Your task to perform on an android device: turn off location history Image 0: 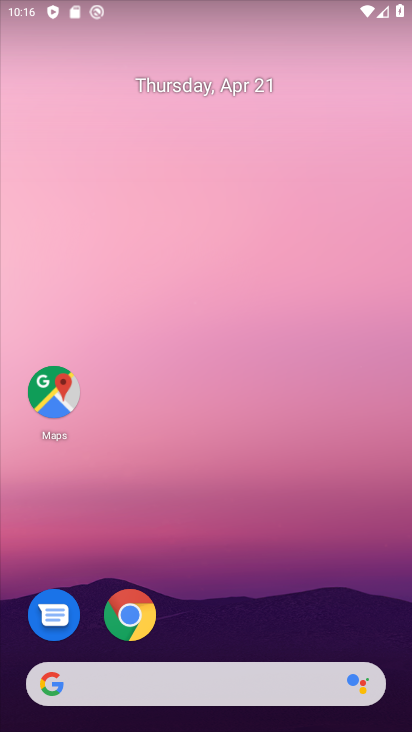
Step 0: drag from (244, 534) to (342, 56)
Your task to perform on an android device: turn off location history Image 1: 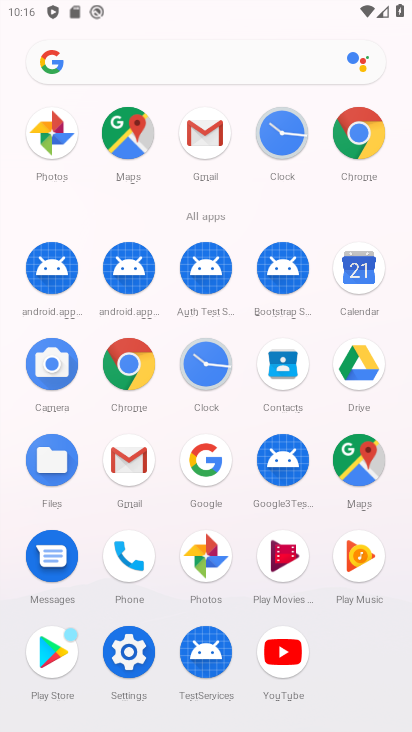
Step 1: click (116, 655)
Your task to perform on an android device: turn off location history Image 2: 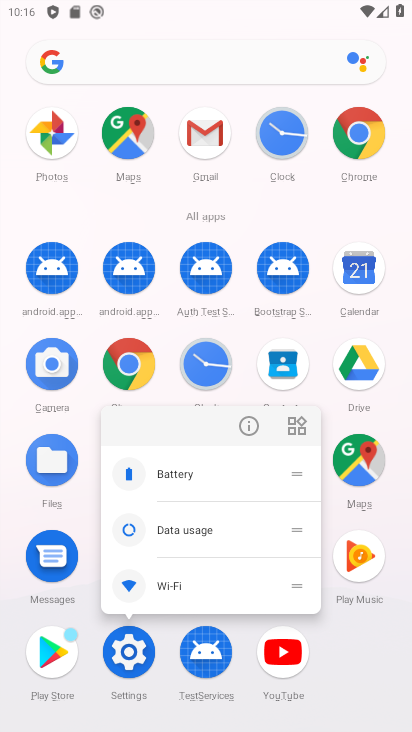
Step 2: click (121, 660)
Your task to perform on an android device: turn off location history Image 3: 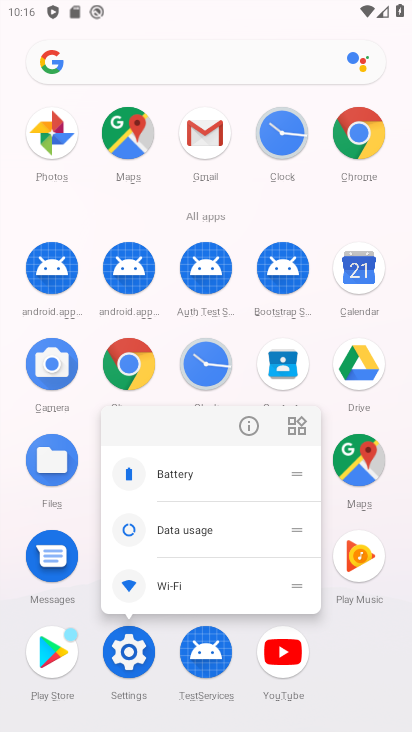
Step 3: click (136, 650)
Your task to perform on an android device: turn off location history Image 4: 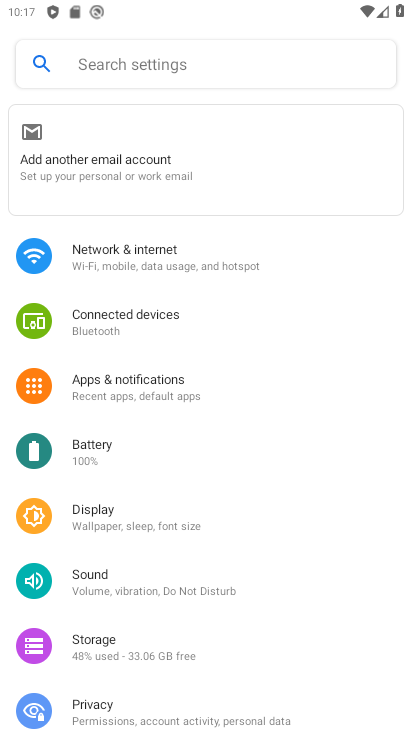
Step 4: drag from (120, 640) to (238, 295)
Your task to perform on an android device: turn off location history Image 5: 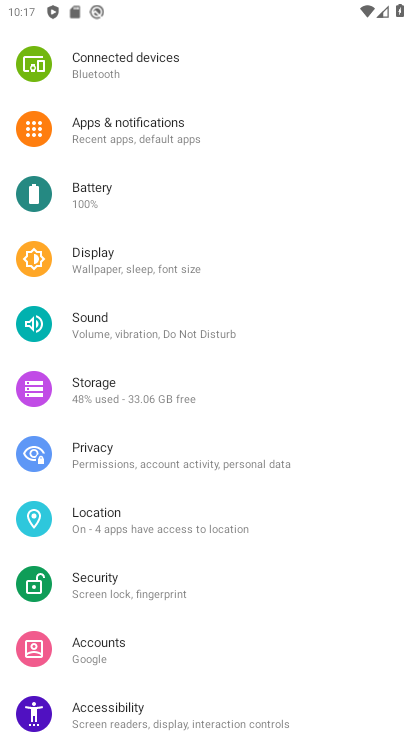
Step 5: click (157, 520)
Your task to perform on an android device: turn off location history Image 6: 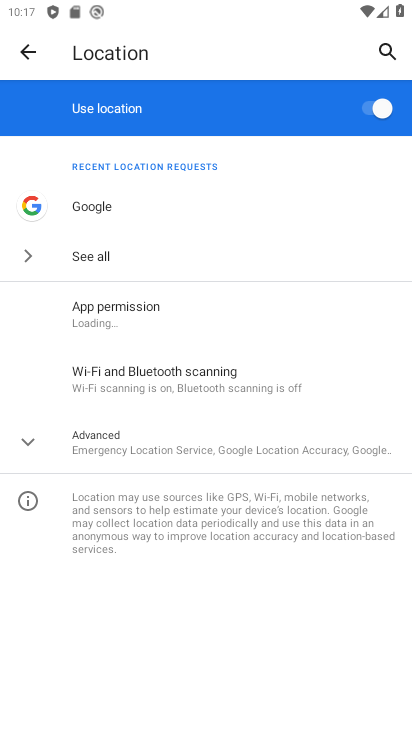
Step 6: click (136, 443)
Your task to perform on an android device: turn off location history Image 7: 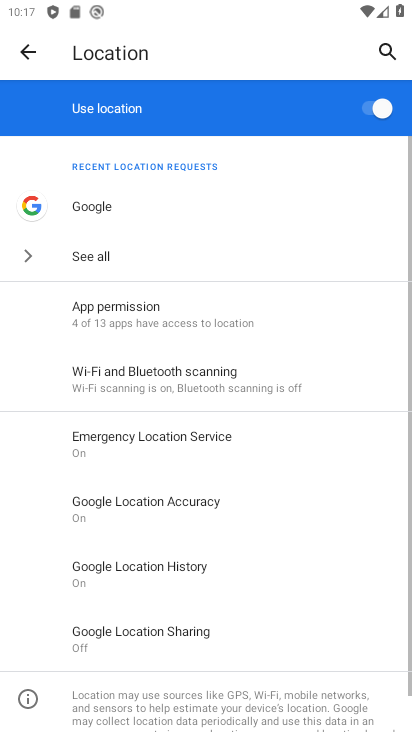
Step 7: click (192, 575)
Your task to perform on an android device: turn off location history Image 8: 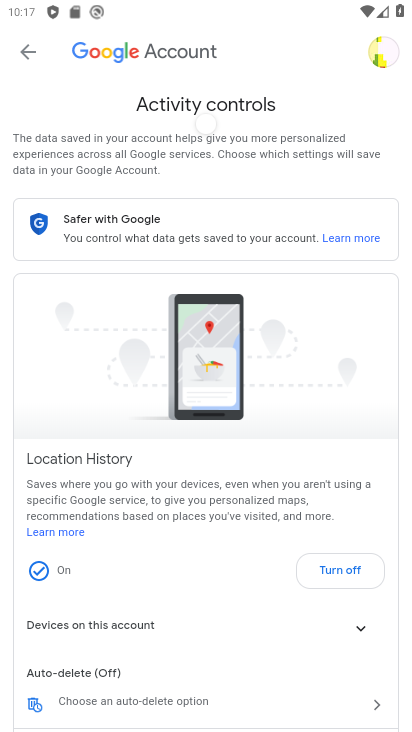
Step 8: click (340, 578)
Your task to perform on an android device: turn off location history Image 9: 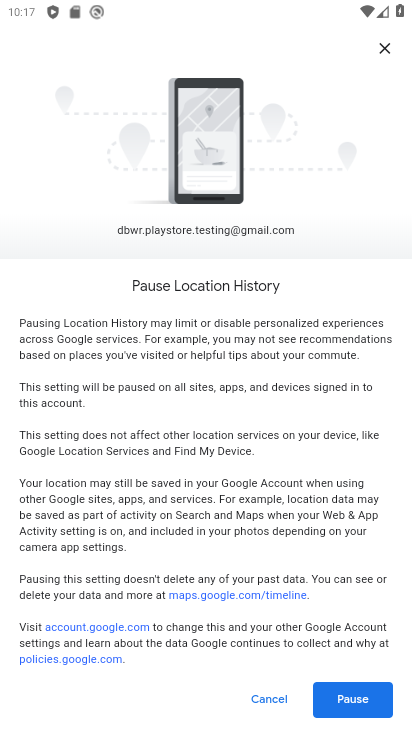
Step 9: click (369, 710)
Your task to perform on an android device: turn off location history Image 10: 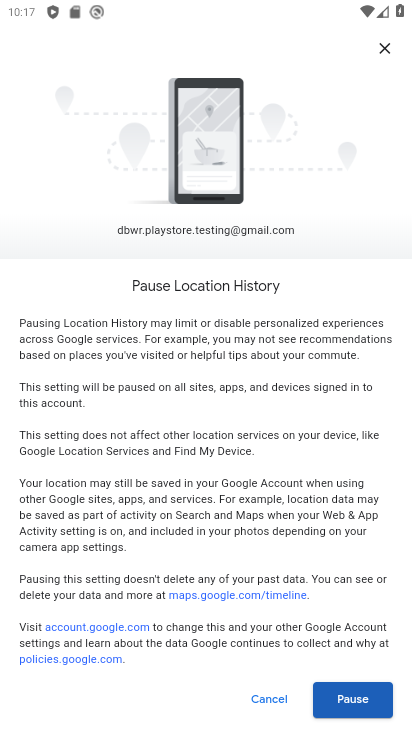
Step 10: click (369, 708)
Your task to perform on an android device: turn off location history Image 11: 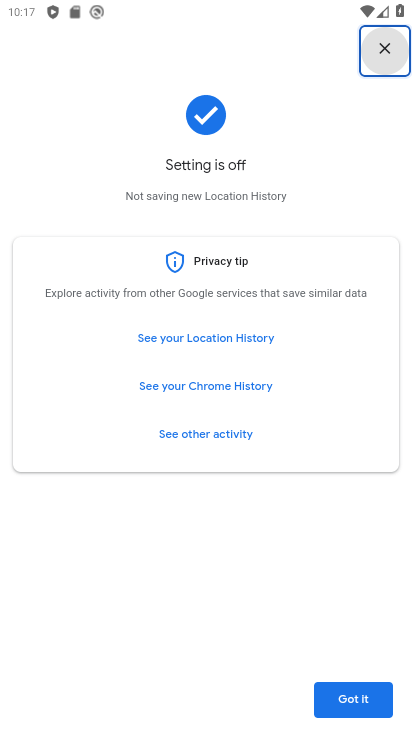
Step 11: click (364, 705)
Your task to perform on an android device: turn off location history Image 12: 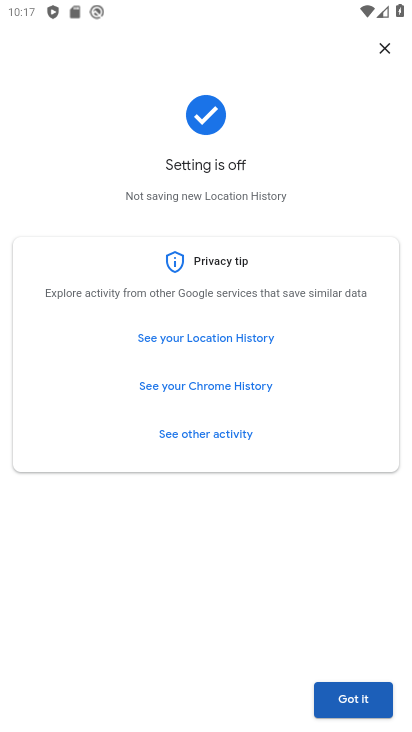
Step 12: click (361, 707)
Your task to perform on an android device: turn off location history Image 13: 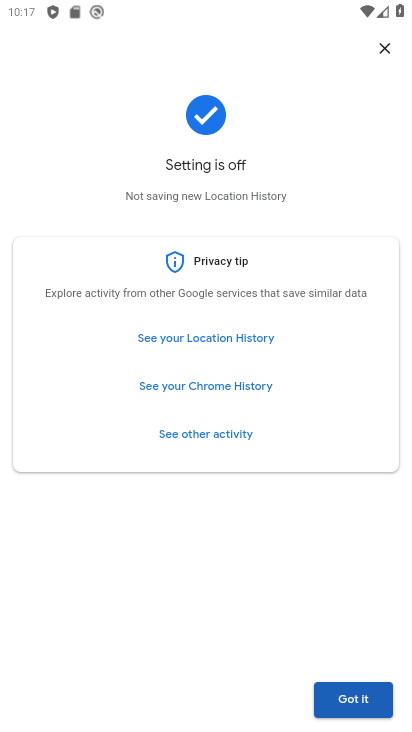
Step 13: click (364, 701)
Your task to perform on an android device: turn off location history Image 14: 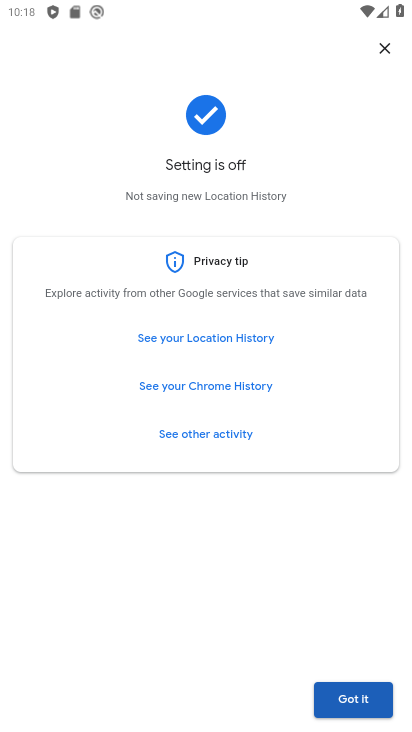
Step 14: click (367, 704)
Your task to perform on an android device: turn off location history Image 15: 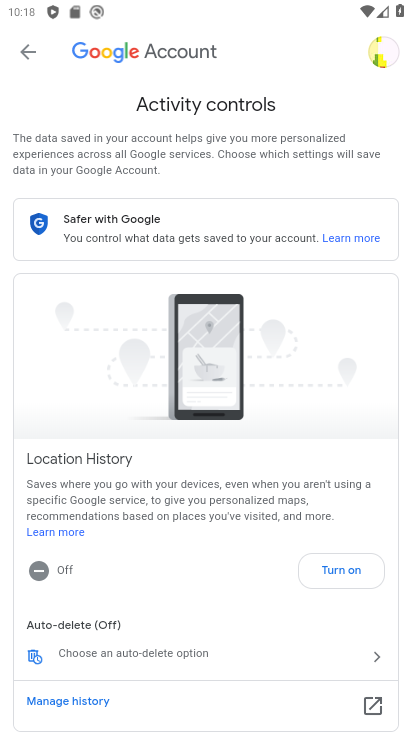
Step 15: task complete